Your task to perform on an android device: install app "Mercado Libre" Image 0: 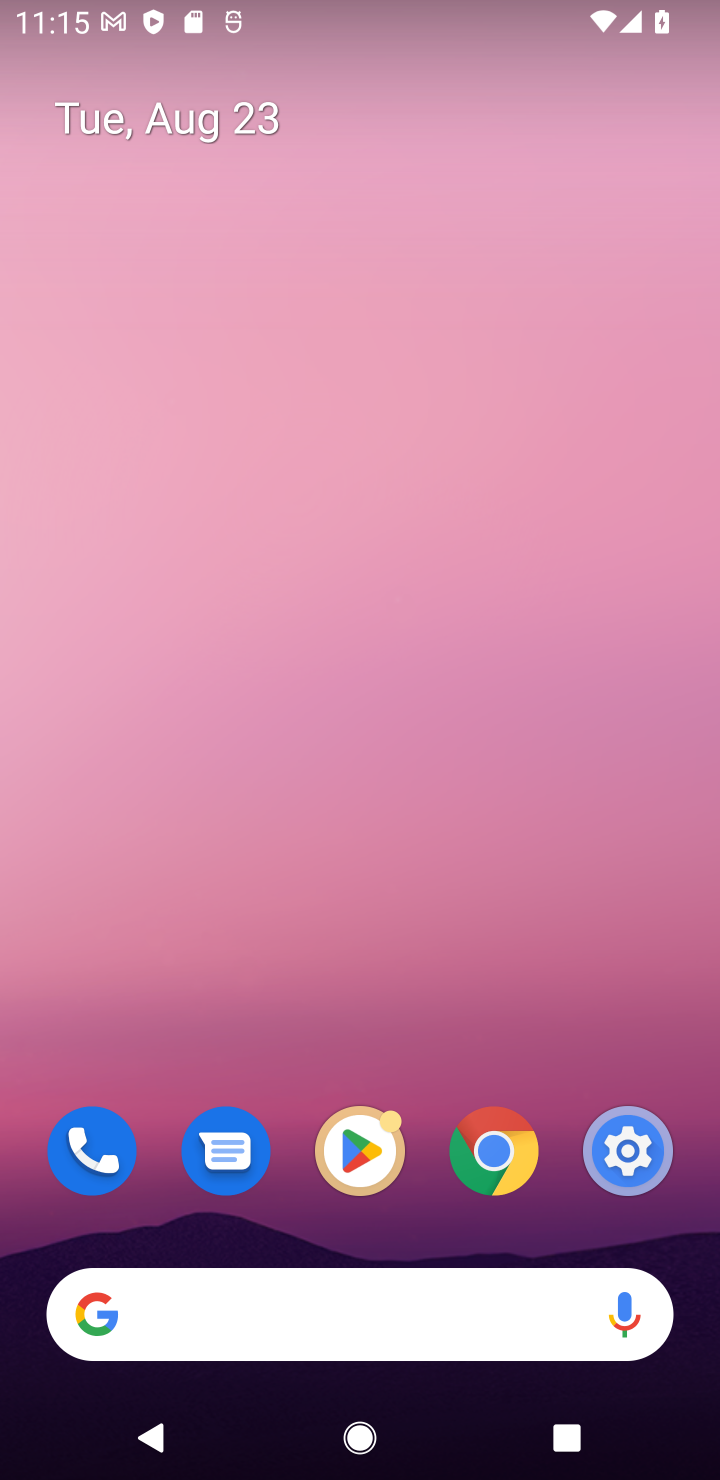
Step 0: drag from (348, 1331) to (421, 43)
Your task to perform on an android device: install app "Mercado Libre" Image 1: 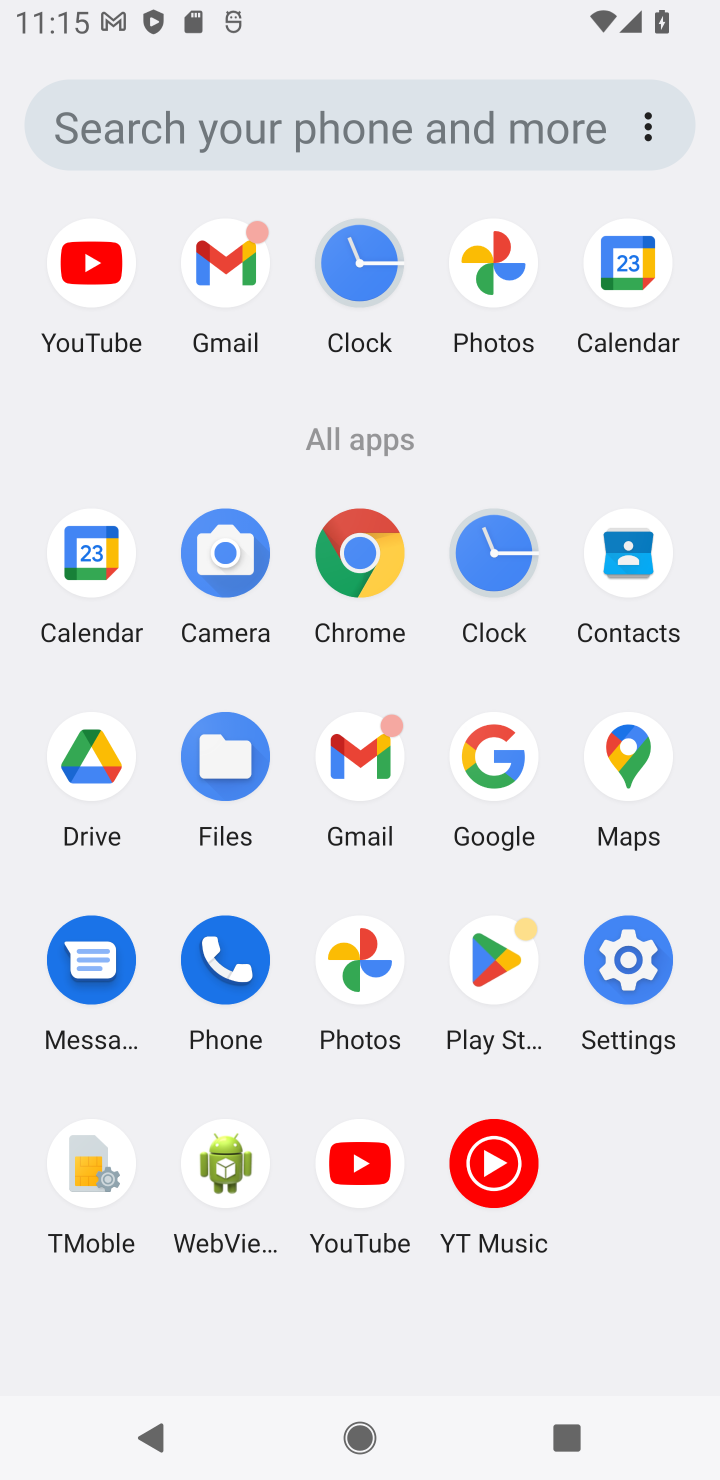
Step 1: click (490, 954)
Your task to perform on an android device: install app "Mercado Libre" Image 2: 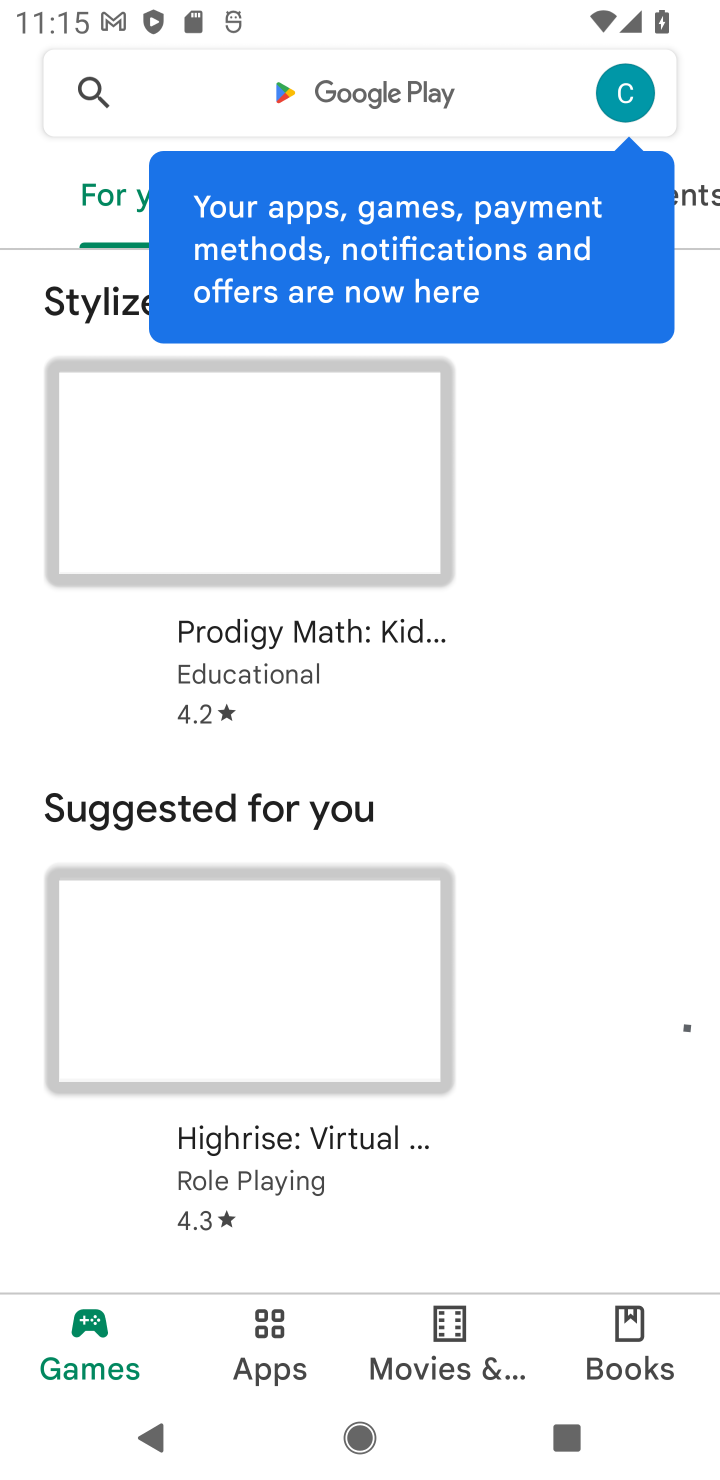
Step 2: click (450, 84)
Your task to perform on an android device: install app "Mercado Libre" Image 3: 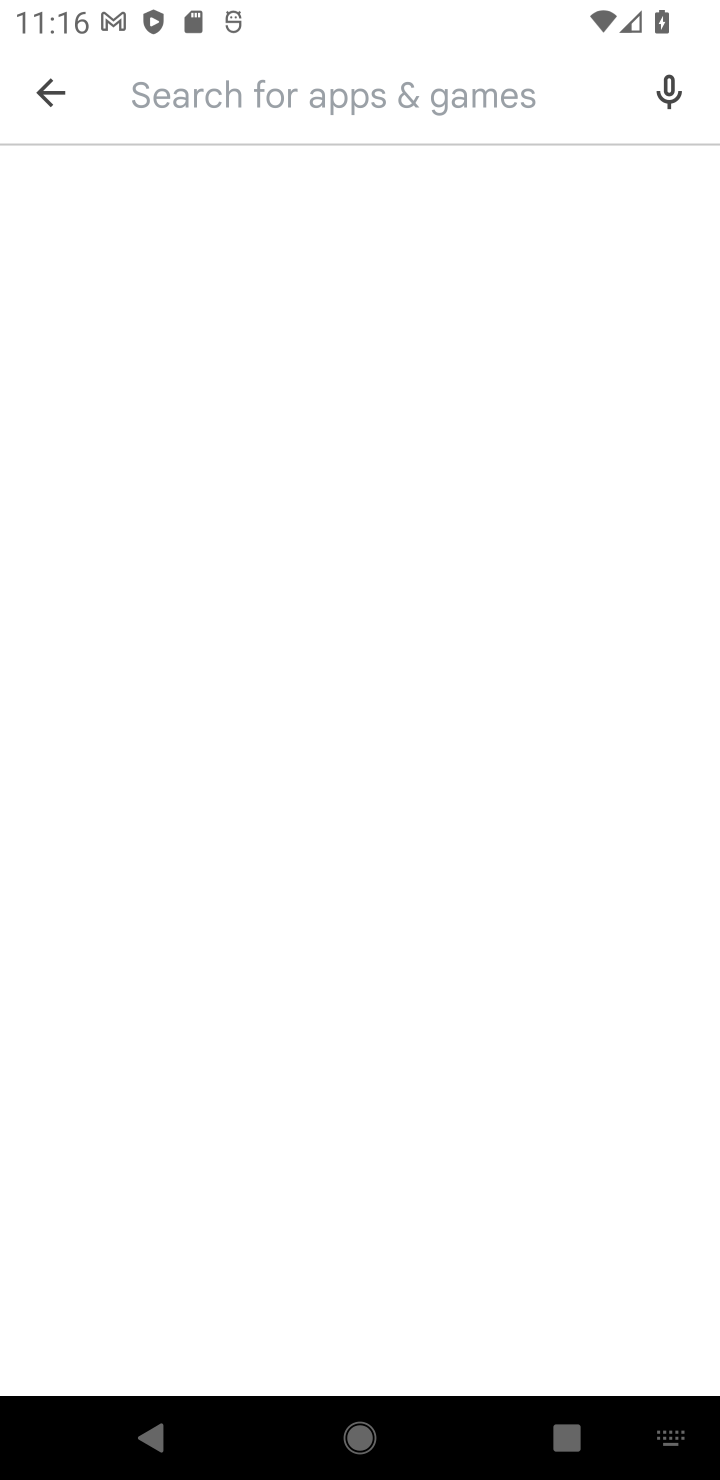
Step 3: click (233, 73)
Your task to perform on an android device: install app "Mercado Libre" Image 4: 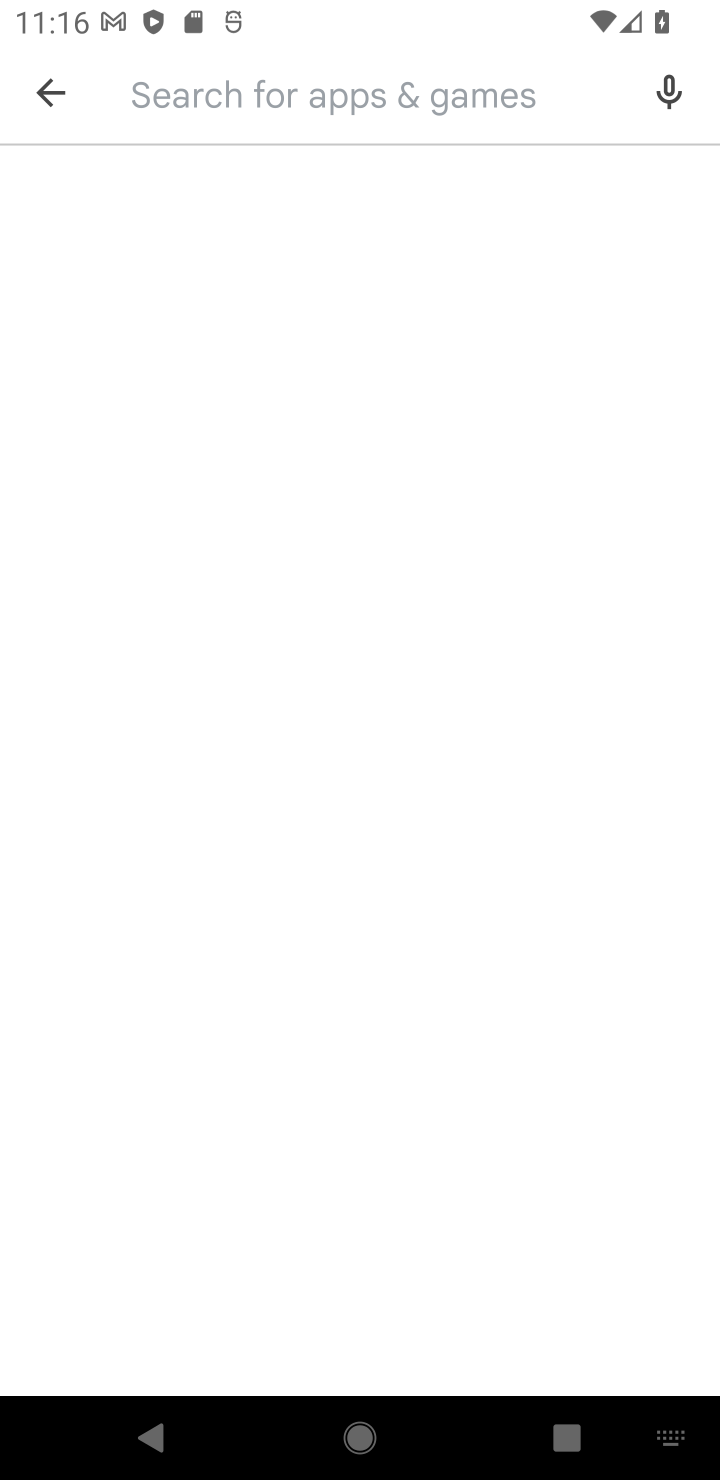
Step 4: type "Mercado Libre"
Your task to perform on an android device: install app "Mercado Libre" Image 5: 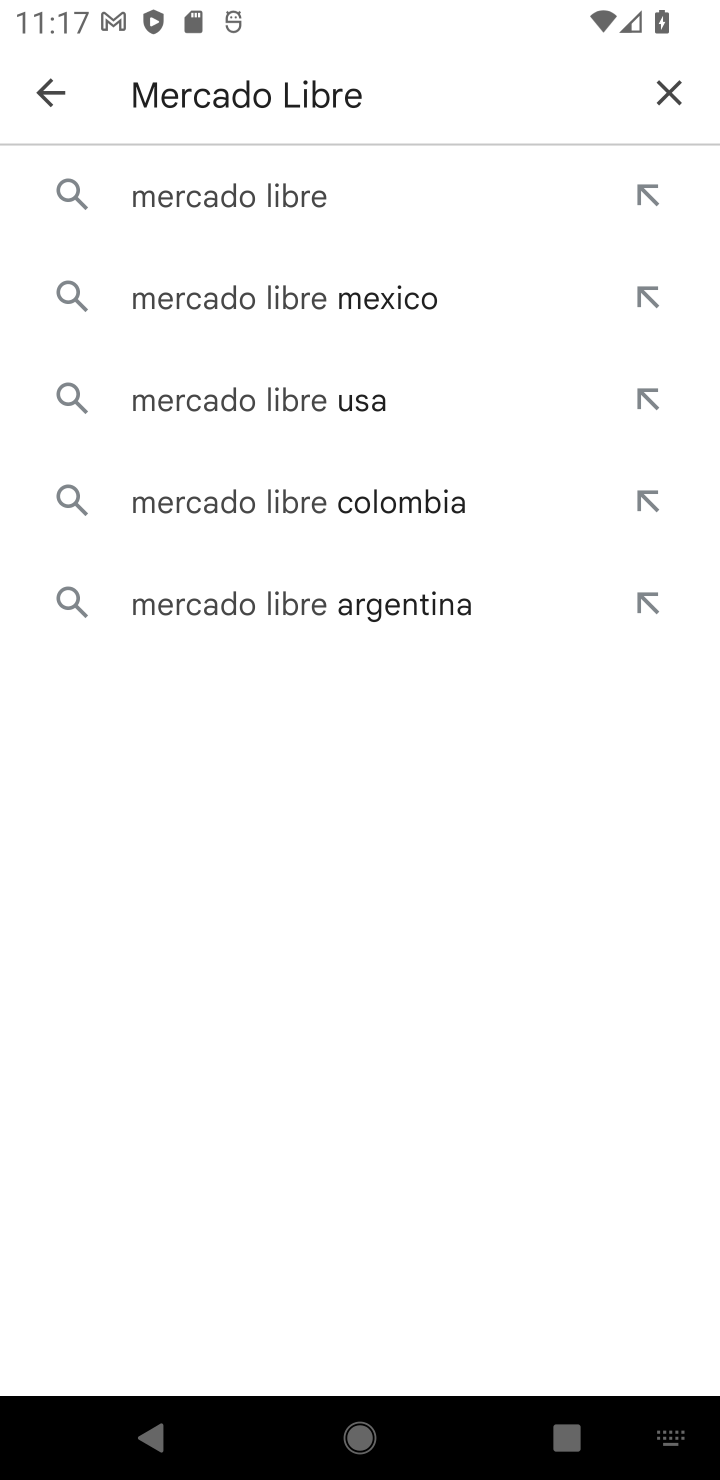
Step 5: click (260, 205)
Your task to perform on an android device: install app "Mercado Libre" Image 6: 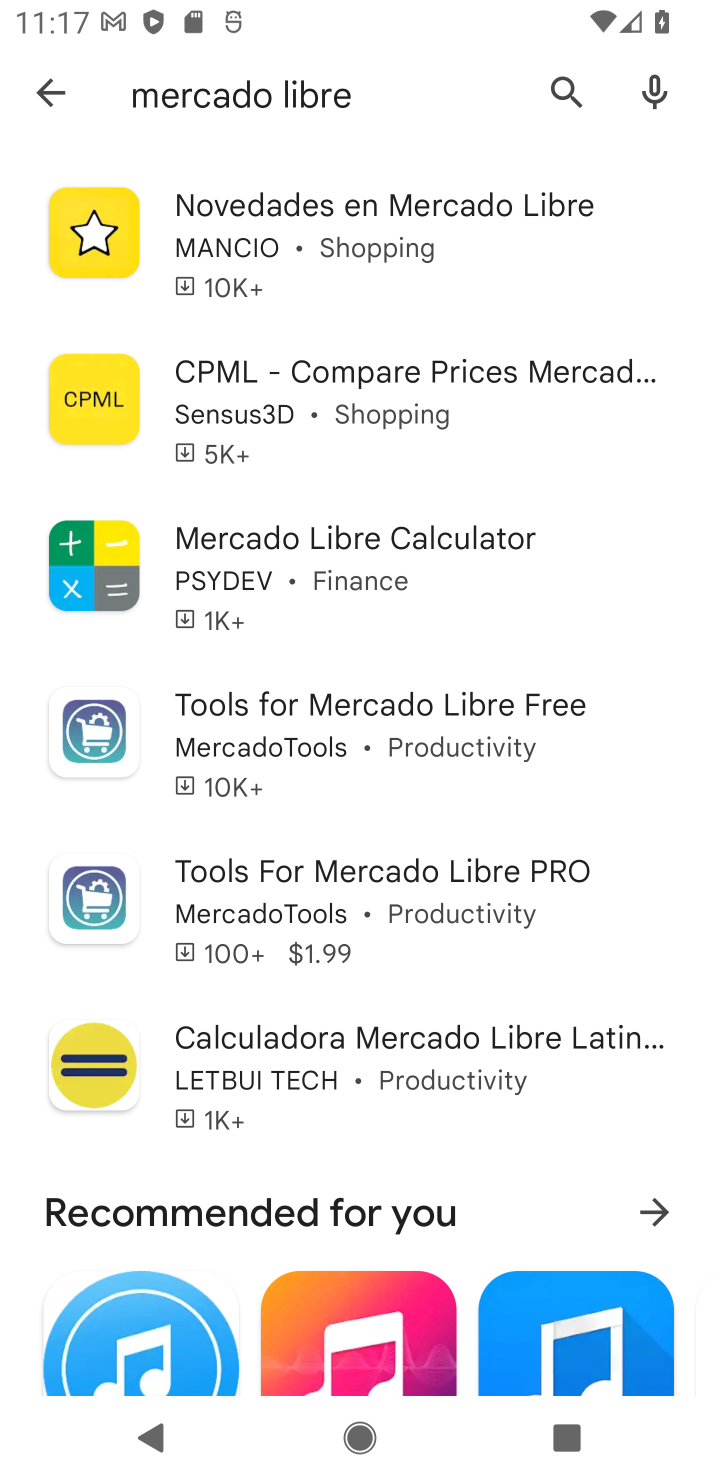
Step 6: task complete